Your task to perform on an android device: turn smart compose on in the gmail app Image 0: 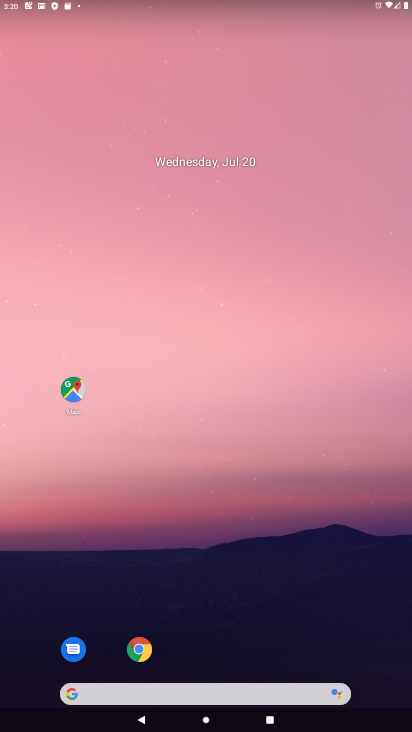
Step 0: drag from (232, 691) to (284, 9)
Your task to perform on an android device: turn smart compose on in the gmail app Image 1: 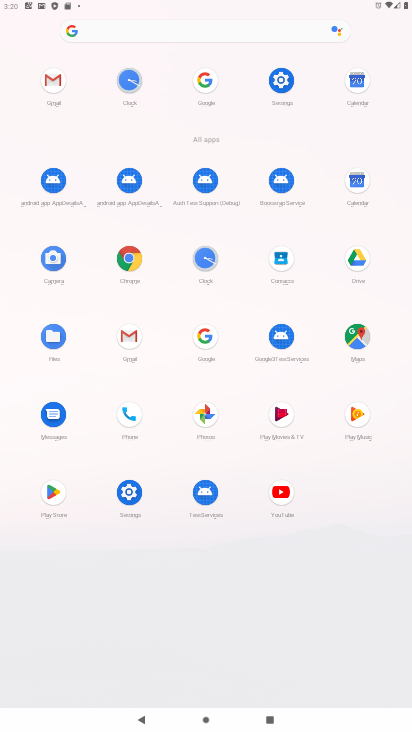
Step 1: click (128, 335)
Your task to perform on an android device: turn smart compose on in the gmail app Image 2: 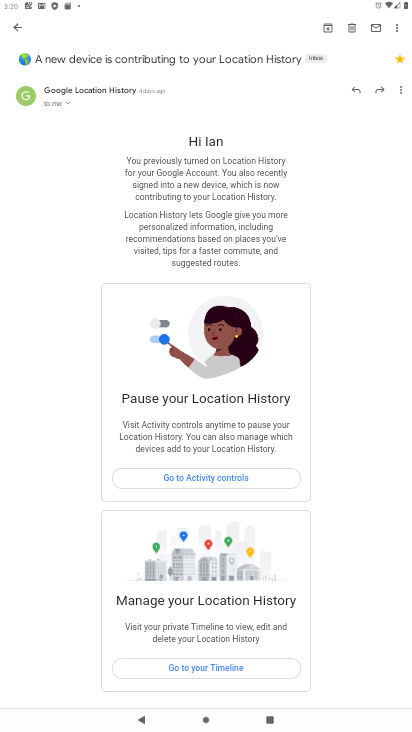
Step 2: press back button
Your task to perform on an android device: turn smart compose on in the gmail app Image 3: 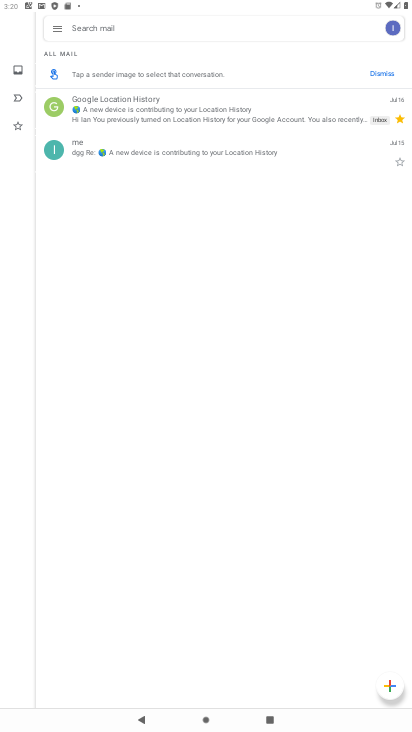
Step 3: click (56, 27)
Your task to perform on an android device: turn smart compose on in the gmail app Image 4: 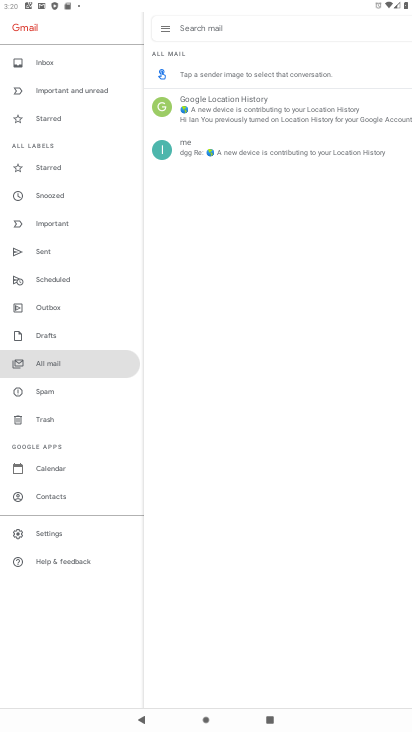
Step 4: click (49, 534)
Your task to perform on an android device: turn smart compose on in the gmail app Image 5: 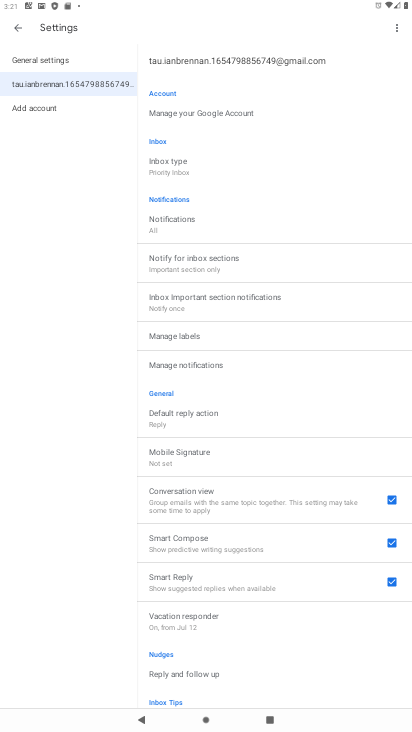
Step 5: task complete